Your task to perform on an android device: Go to notification settings Image 0: 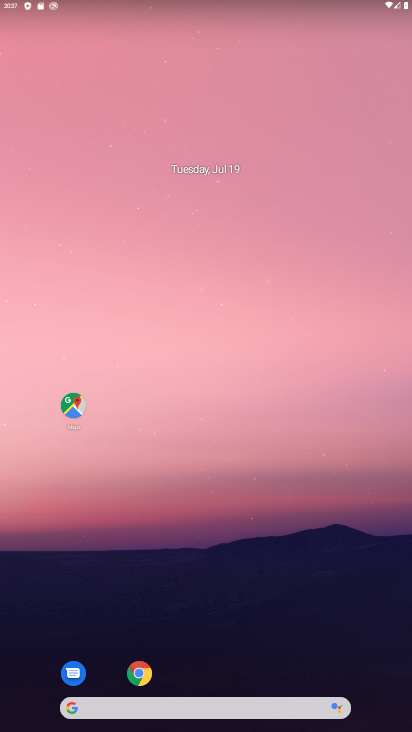
Step 0: drag from (241, 563) to (241, 65)
Your task to perform on an android device: Go to notification settings Image 1: 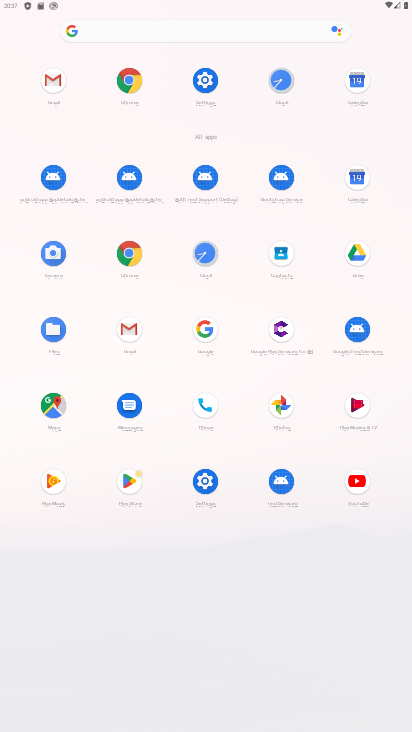
Step 1: click (204, 493)
Your task to perform on an android device: Go to notification settings Image 2: 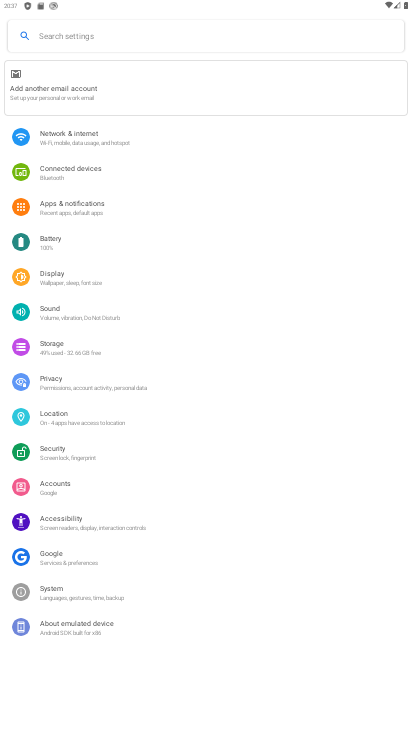
Step 2: click (87, 208)
Your task to perform on an android device: Go to notification settings Image 3: 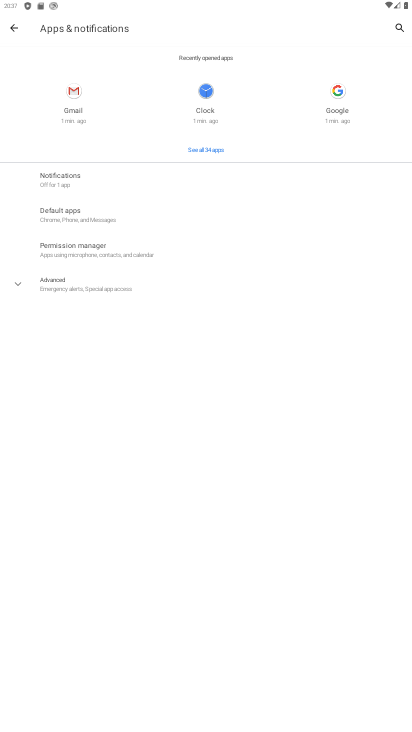
Step 3: click (73, 179)
Your task to perform on an android device: Go to notification settings Image 4: 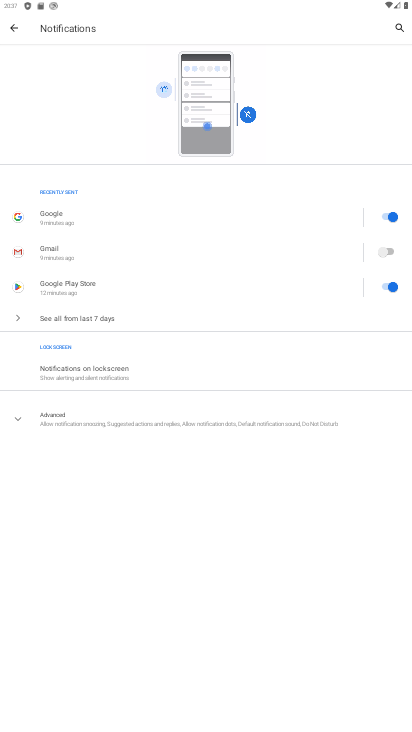
Step 4: task complete